Your task to perform on an android device: check the backup settings in the google photos Image 0: 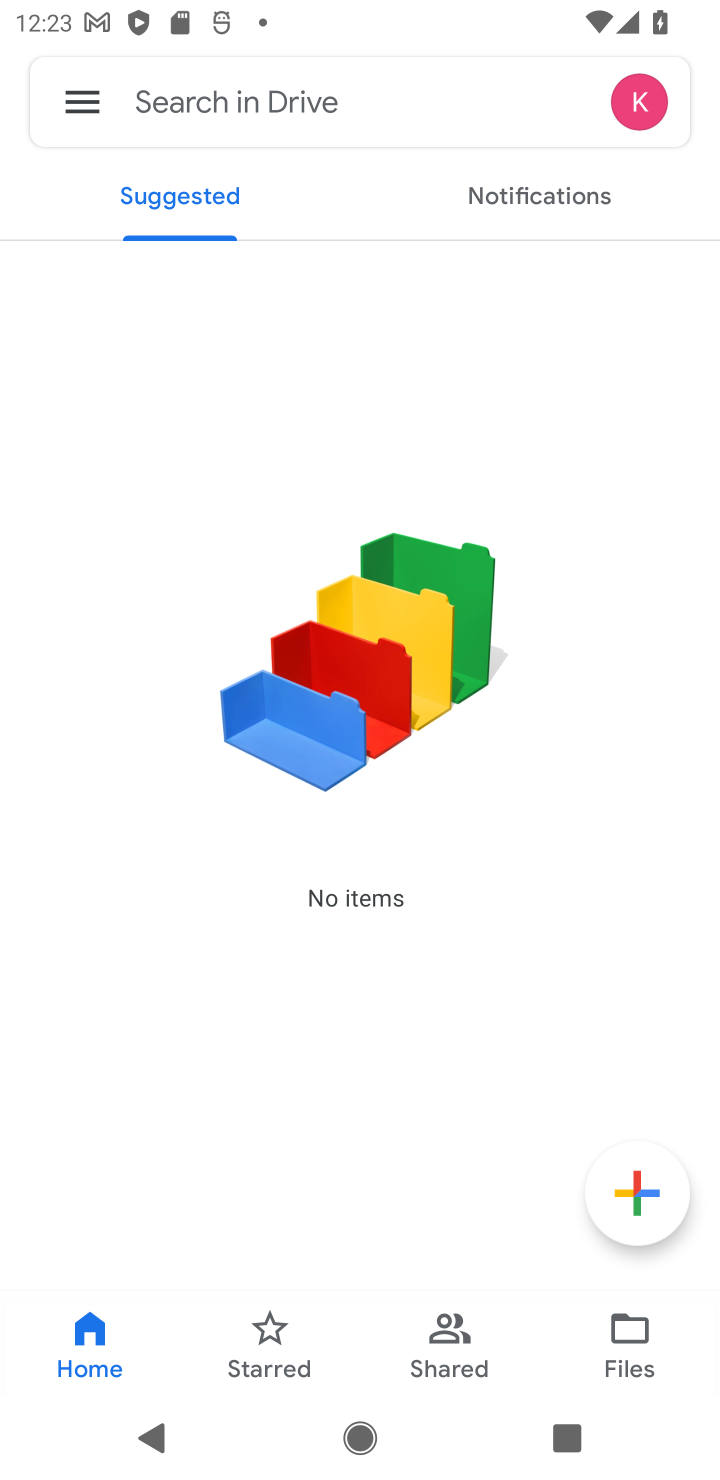
Step 0: press home button
Your task to perform on an android device: check the backup settings in the google photos Image 1: 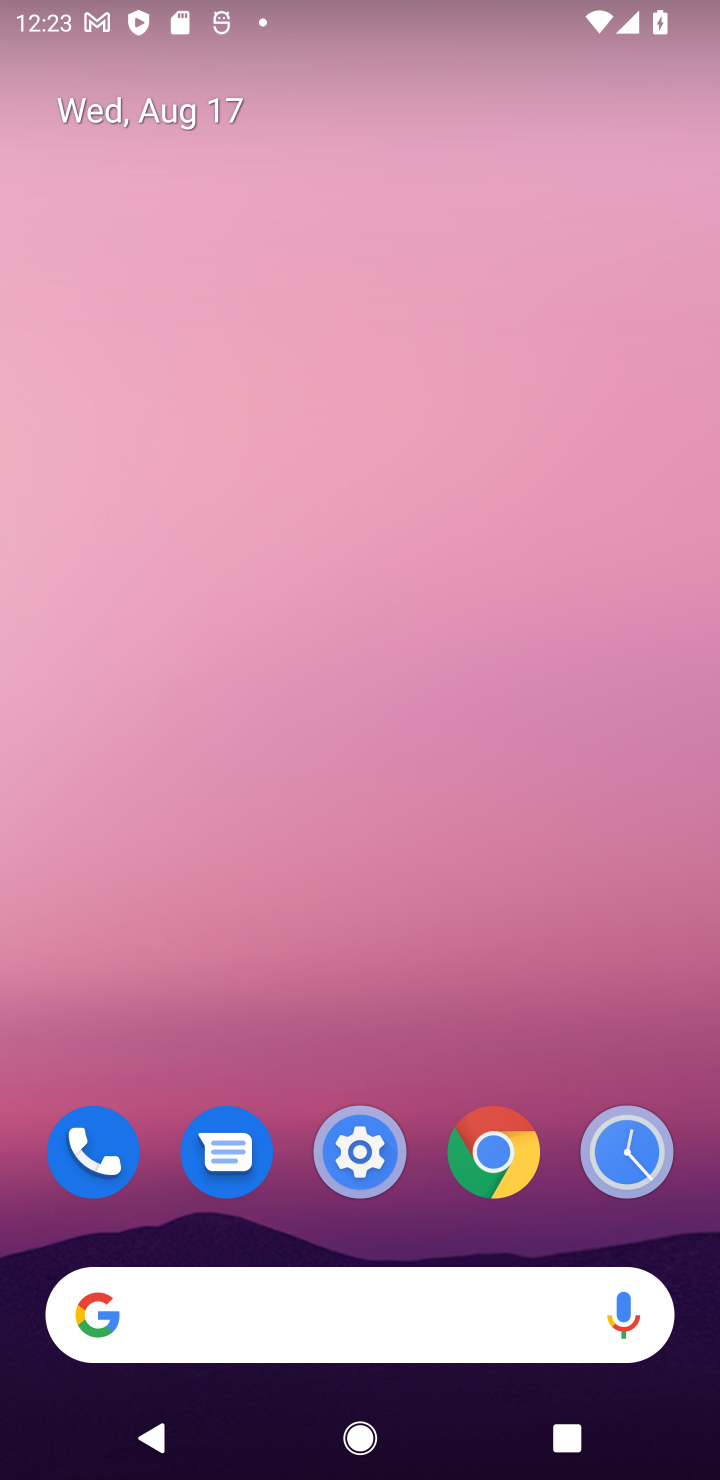
Step 1: drag from (552, 1204) to (280, 85)
Your task to perform on an android device: check the backup settings in the google photos Image 2: 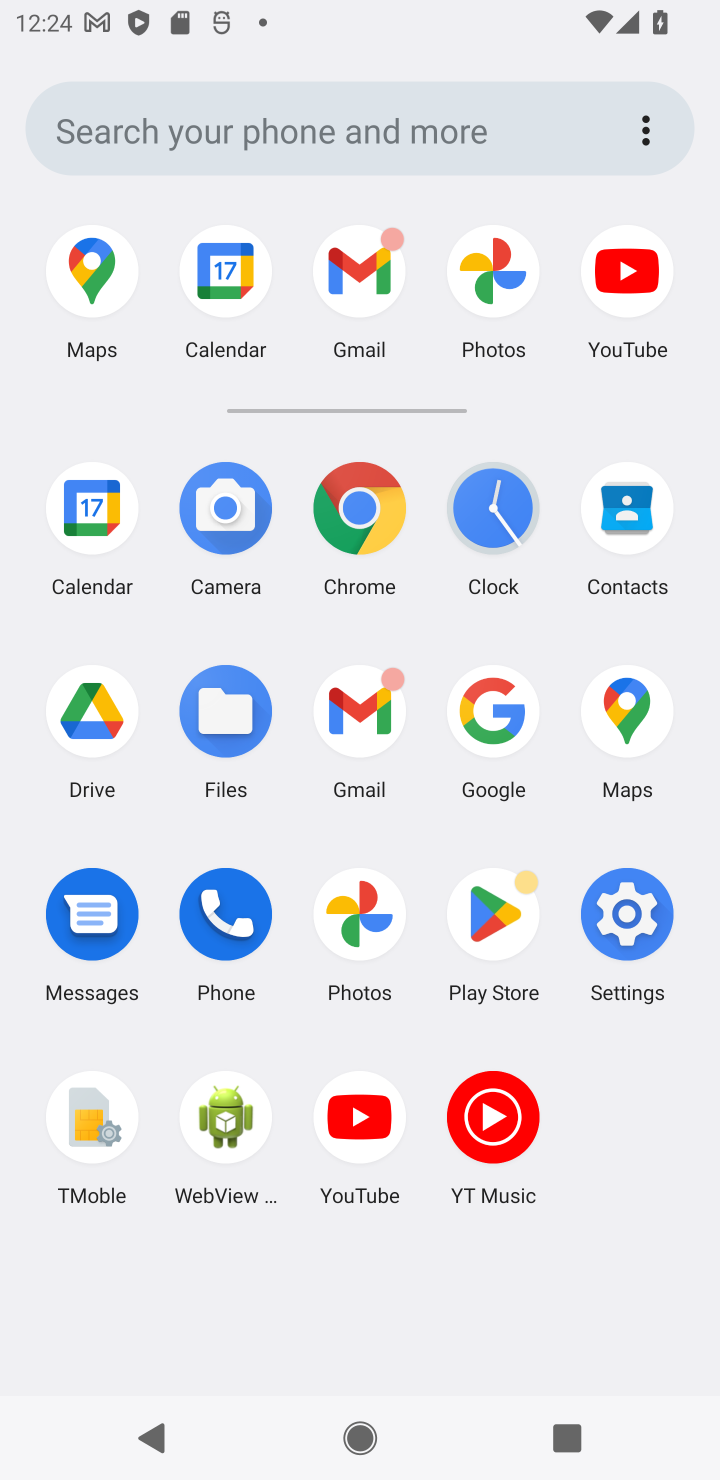
Step 2: click (375, 941)
Your task to perform on an android device: check the backup settings in the google photos Image 3: 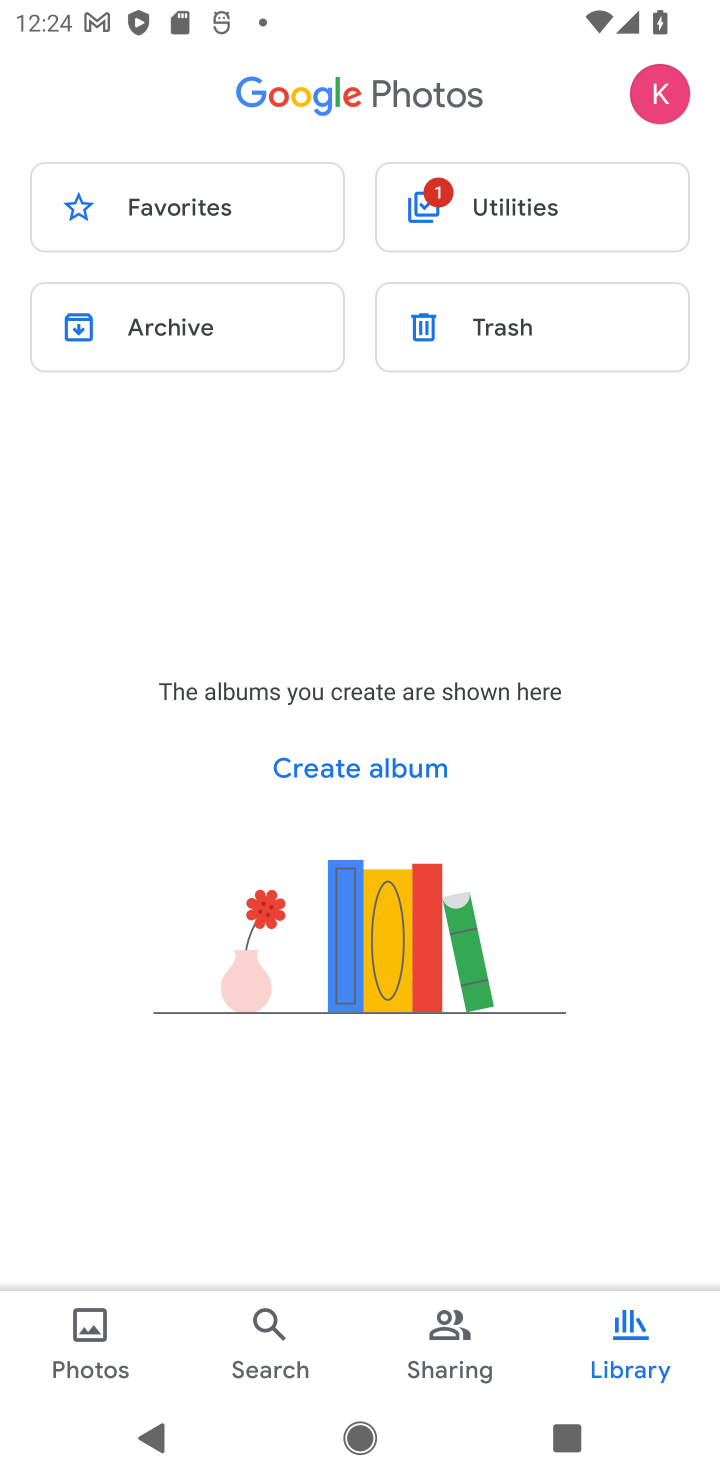
Step 3: task complete